Your task to perform on an android device: turn notification dots off Image 0: 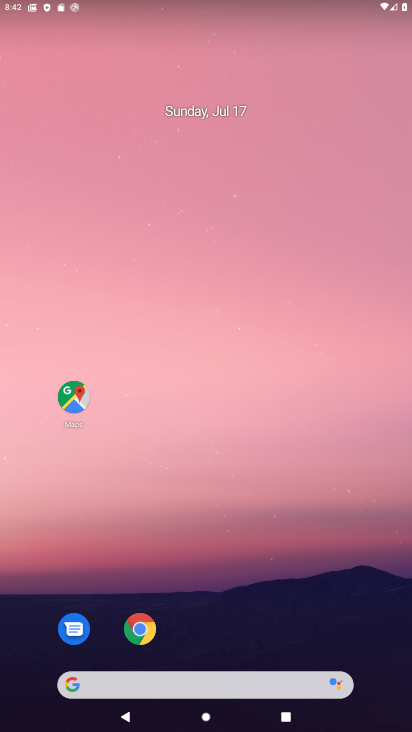
Step 0: drag from (375, 660) to (330, 143)
Your task to perform on an android device: turn notification dots off Image 1: 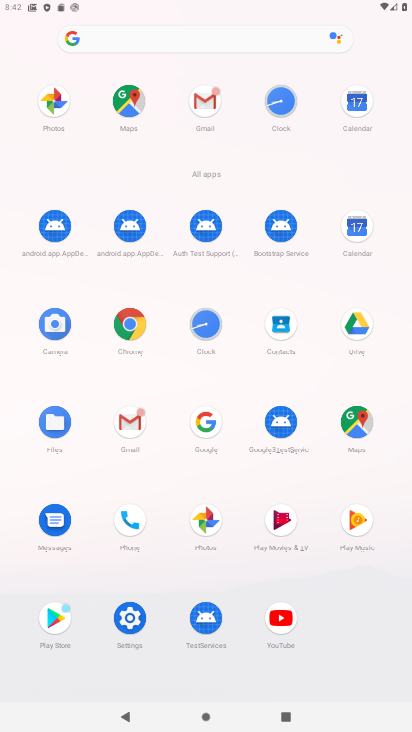
Step 1: click (129, 618)
Your task to perform on an android device: turn notification dots off Image 2: 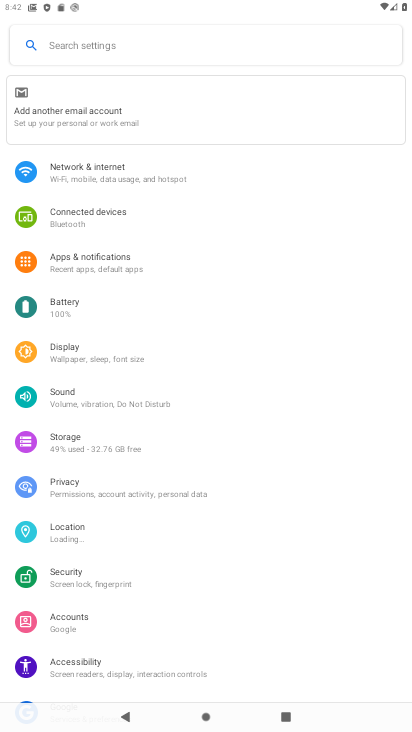
Step 2: click (84, 255)
Your task to perform on an android device: turn notification dots off Image 3: 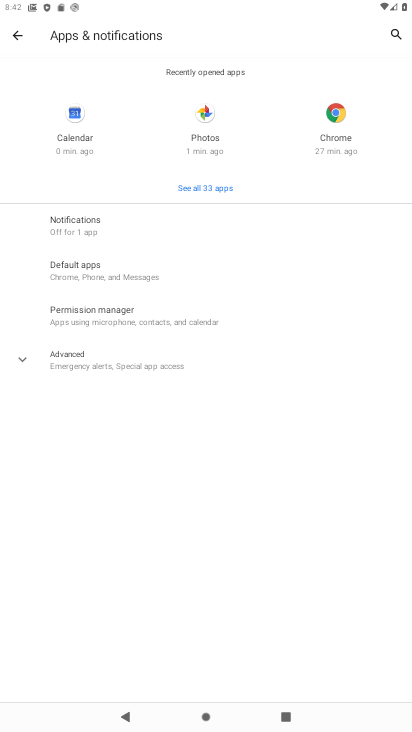
Step 3: click (69, 217)
Your task to perform on an android device: turn notification dots off Image 4: 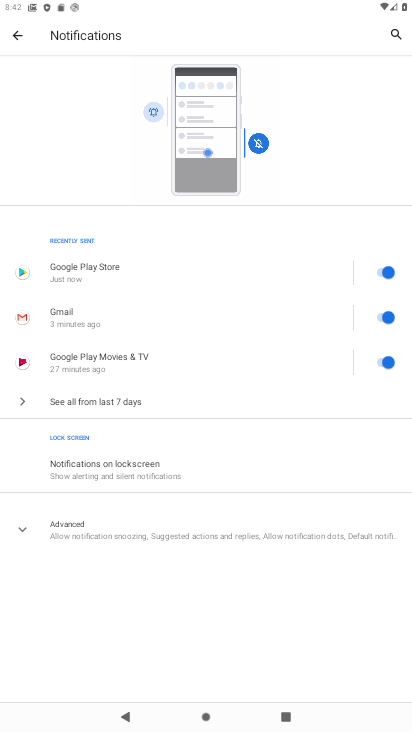
Step 4: click (14, 530)
Your task to perform on an android device: turn notification dots off Image 5: 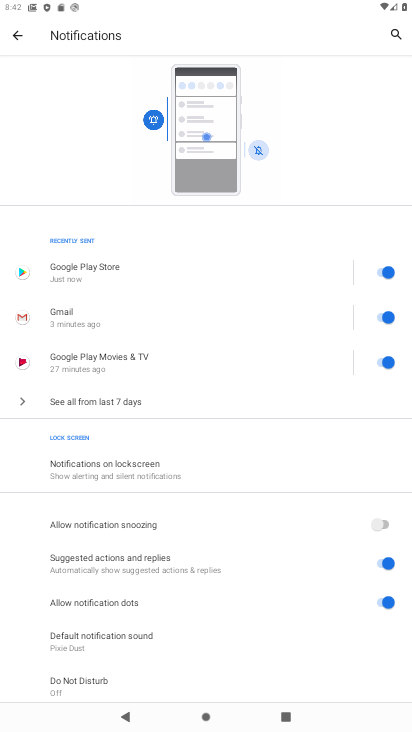
Step 5: click (378, 602)
Your task to perform on an android device: turn notification dots off Image 6: 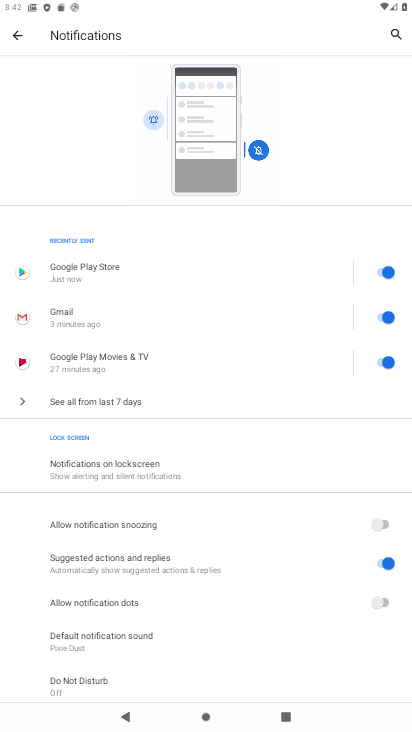
Step 6: task complete